Your task to perform on an android device: star an email in the gmail app Image 0: 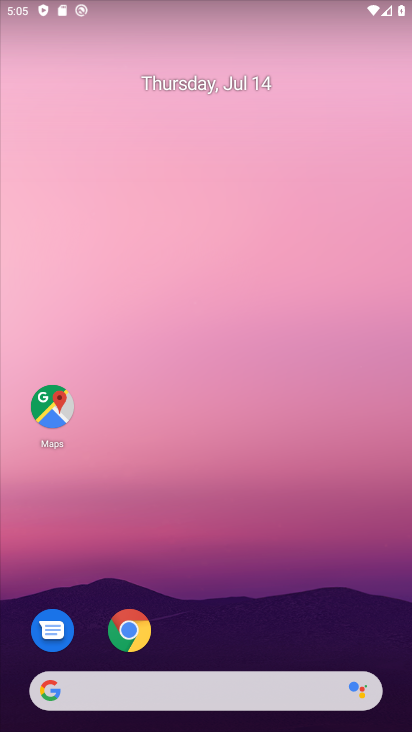
Step 0: press home button
Your task to perform on an android device: star an email in the gmail app Image 1: 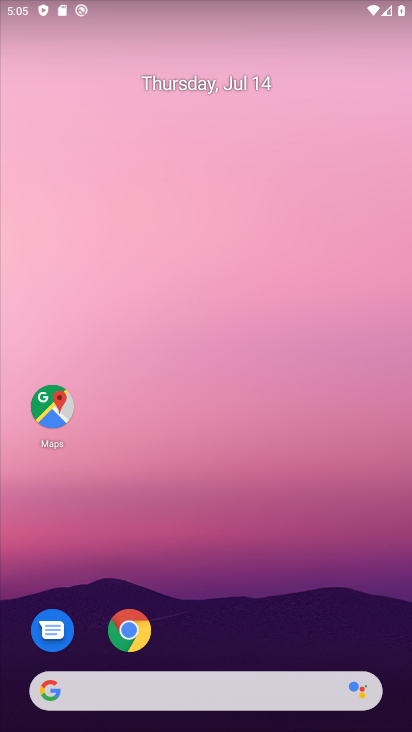
Step 1: drag from (246, 622) to (128, 20)
Your task to perform on an android device: star an email in the gmail app Image 2: 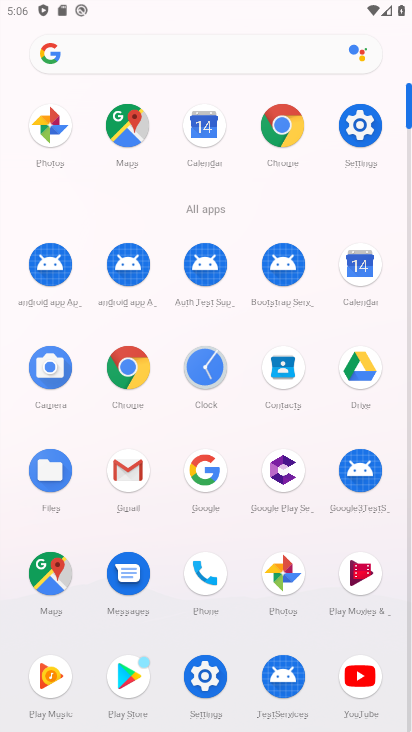
Step 2: click (129, 469)
Your task to perform on an android device: star an email in the gmail app Image 3: 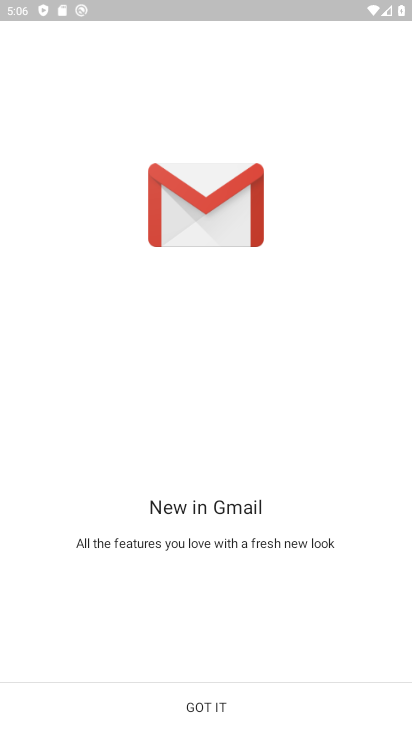
Step 3: click (211, 715)
Your task to perform on an android device: star an email in the gmail app Image 4: 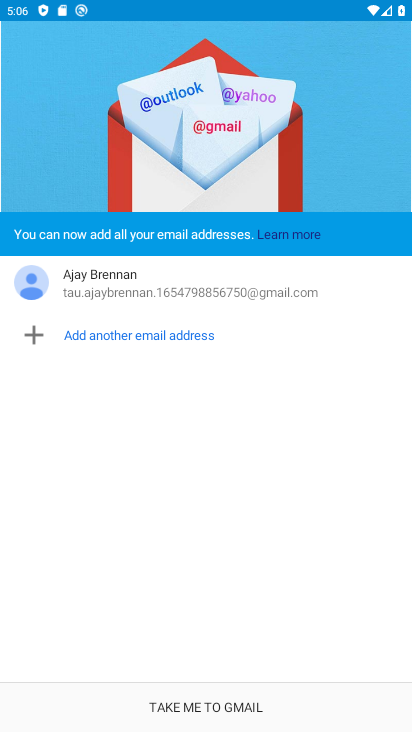
Step 4: click (209, 695)
Your task to perform on an android device: star an email in the gmail app Image 5: 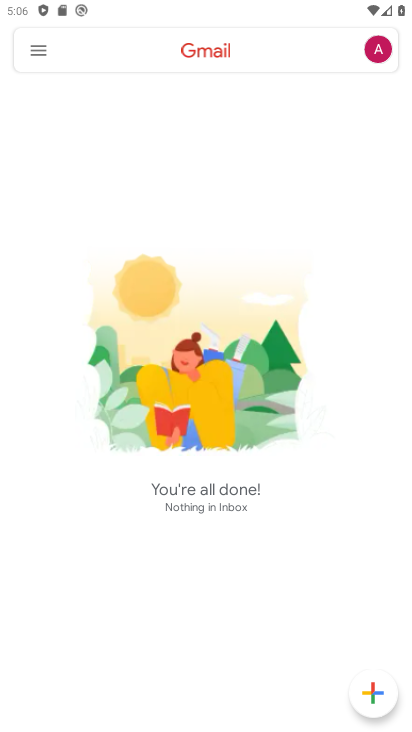
Step 5: click (37, 46)
Your task to perform on an android device: star an email in the gmail app Image 6: 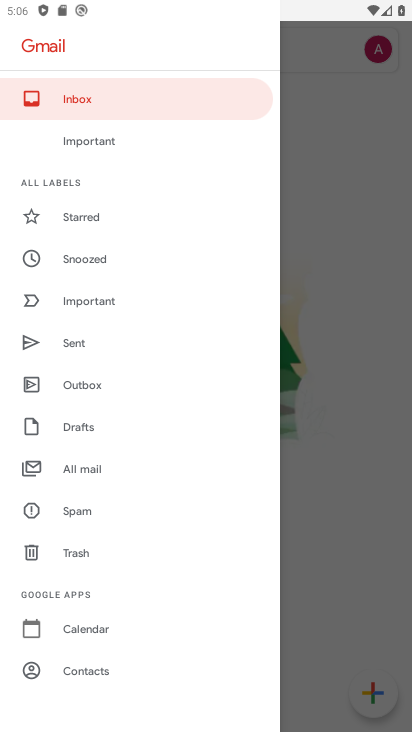
Step 6: click (85, 468)
Your task to perform on an android device: star an email in the gmail app Image 7: 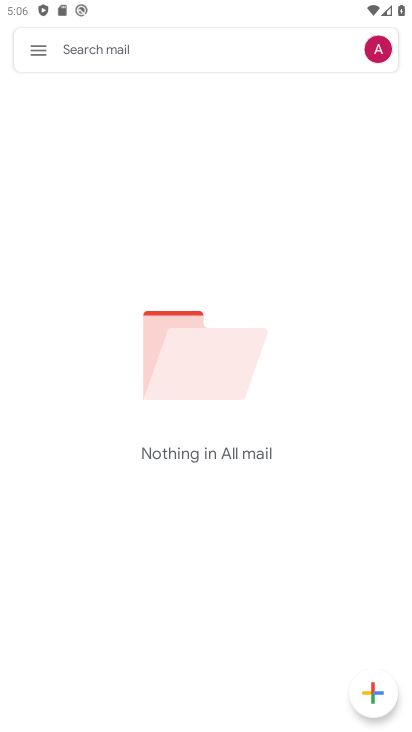
Step 7: task complete